Your task to perform on an android device: turn on airplane mode Image 0: 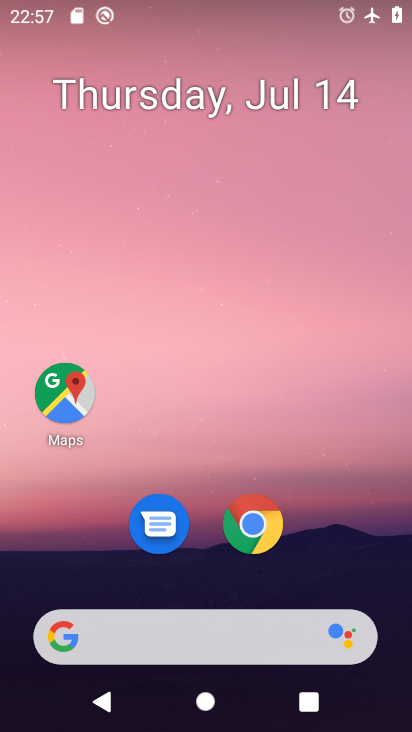
Step 0: drag from (312, 512) to (333, 0)
Your task to perform on an android device: turn on airplane mode Image 1: 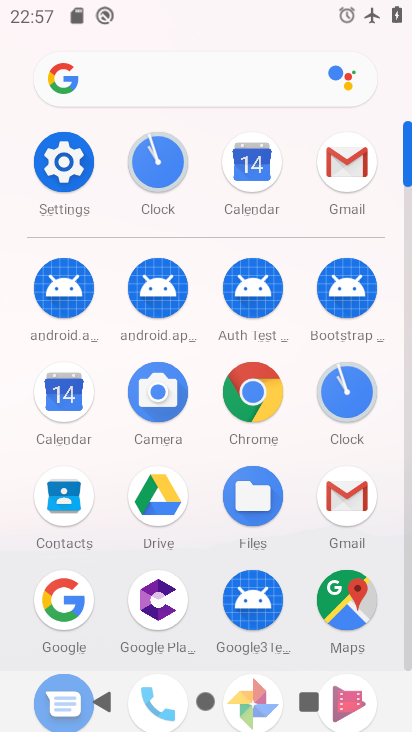
Step 1: click (67, 165)
Your task to perform on an android device: turn on airplane mode Image 2: 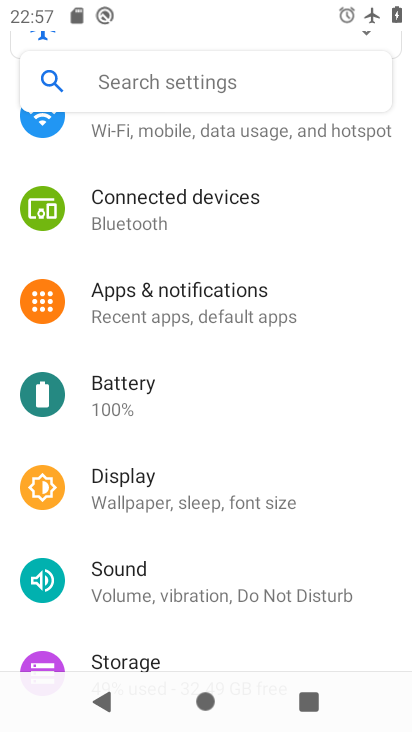
Step 2: drag from (286, 290) to (281, 592)
Your task to perform on an android device: turn on airplane mode Image 3: 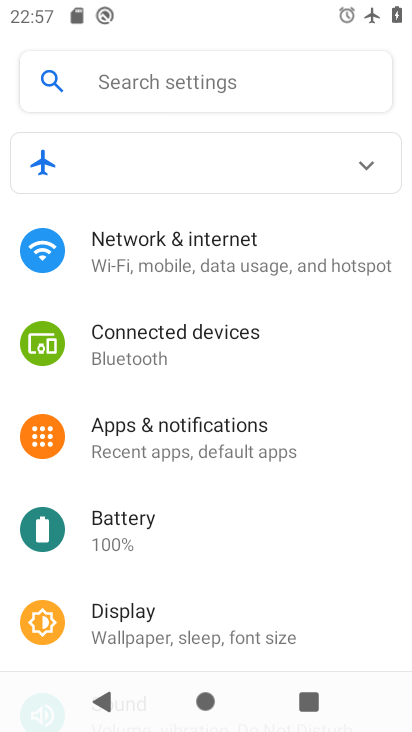
Step 3: click (291, 259)
Your task to perform on an android device: turn on airplane mode Image 4: 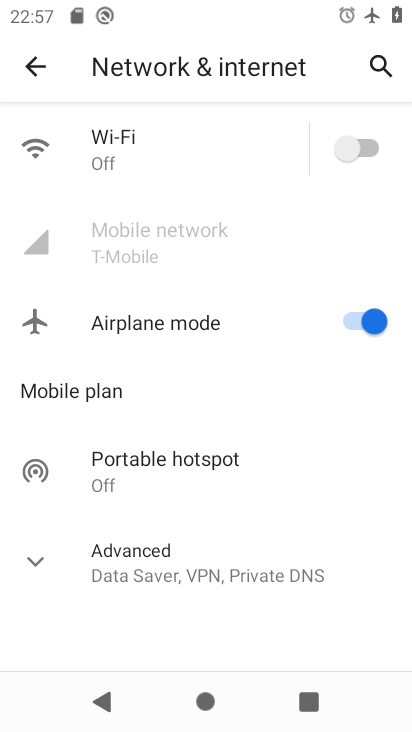
Step 4: task complete